Your task to perform on an android device: check storage Image 0: 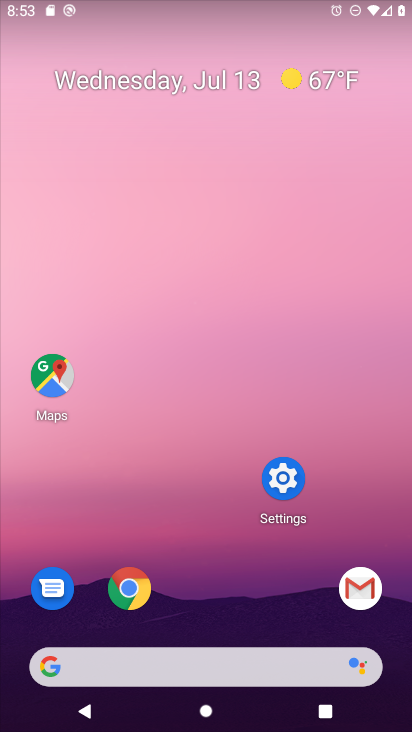
Step 0: click (279, 484)
Your task to perform on an android device: check storage Image 1: 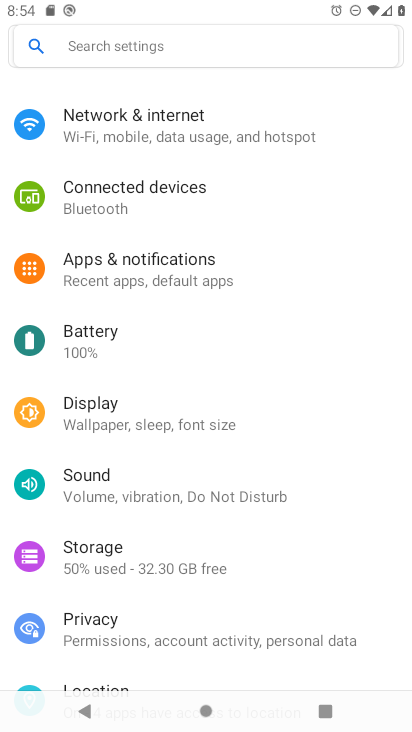
Step 1: click (138, 56)
Your task to perform on an android device: check storage Image 2: 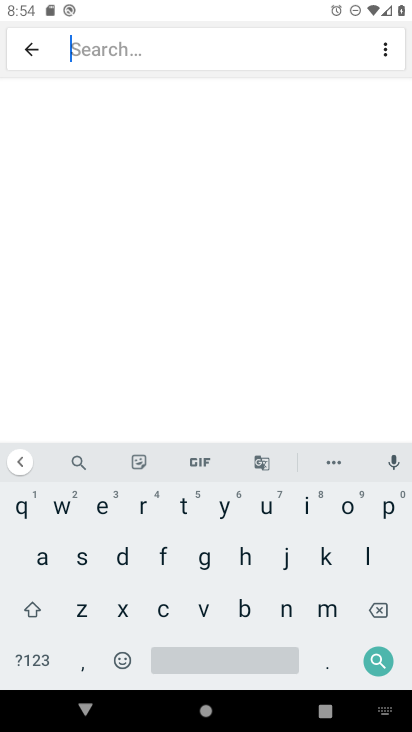
Step 2: click (82, 564)
Your task to perform on an android device: check storage Image 3: 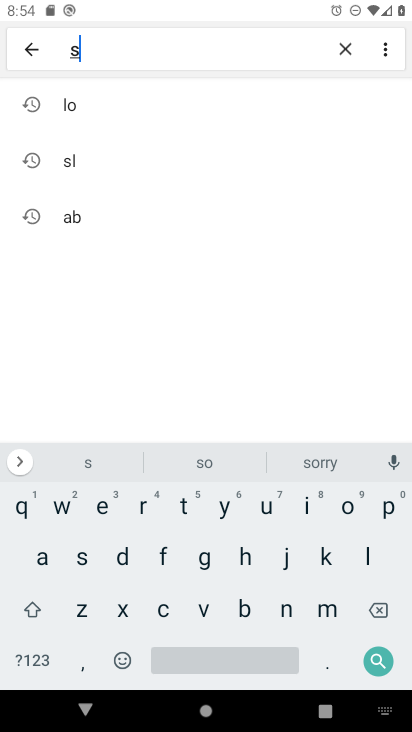
Step 3: click (177, 508)
Your task to perform on an android device: check storage Image 4: 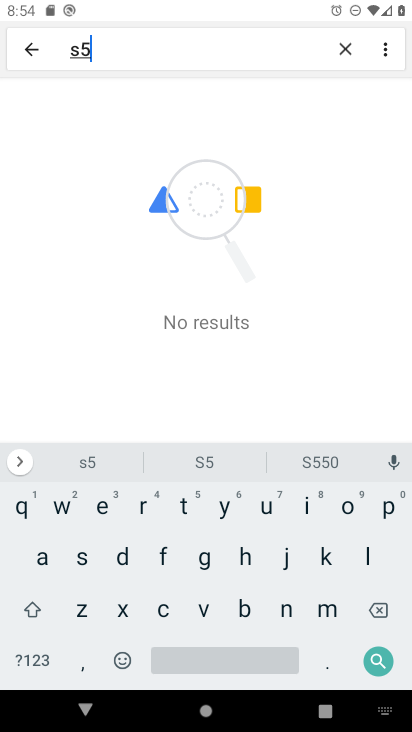
Step 4: click (371, 614)
Your task to perform on an android device: check storage Image 5: 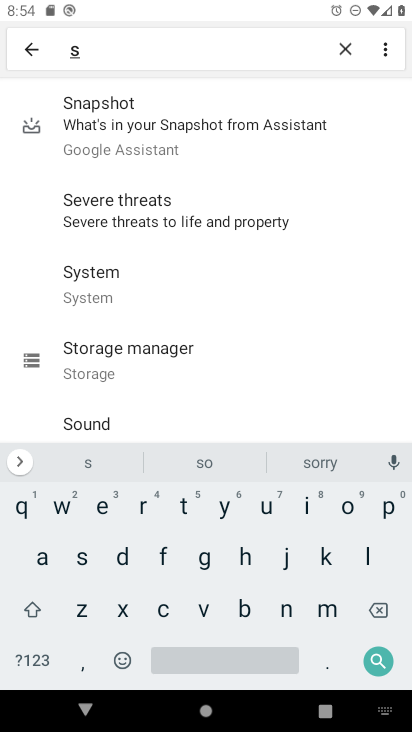
Step 5: click (179, 505)
Your task to perform on an android device: check storage Image 6: 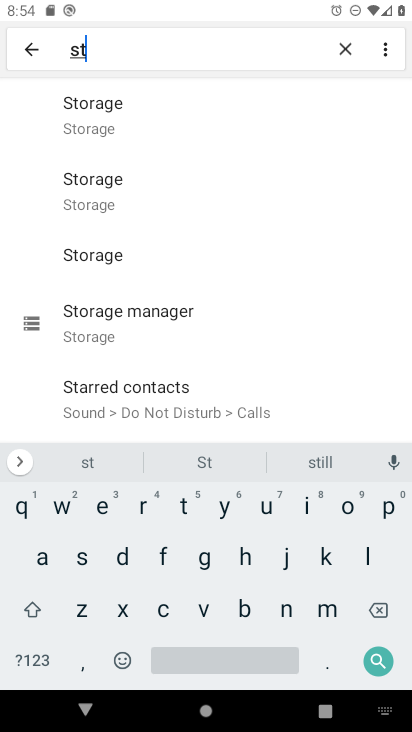
Step 6: click (100, 131)
Your task to perform on an android device: check storage Image 7: 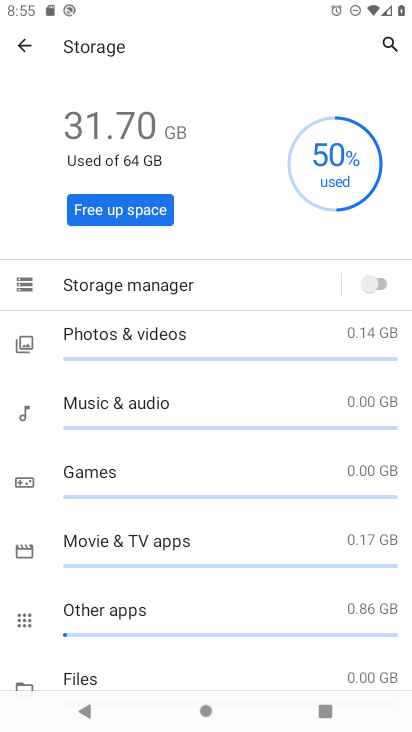
Step 7: task complete